Your task to perform on an android device: toggle notifications settings in the gmail app Image 0: 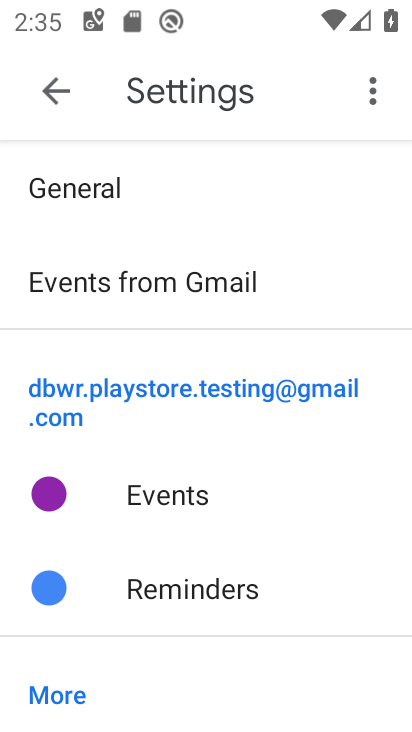
Step 0: click (52, 83)
Your task to perform on an android device: toggle notifications settings in the gmail app Image 1: 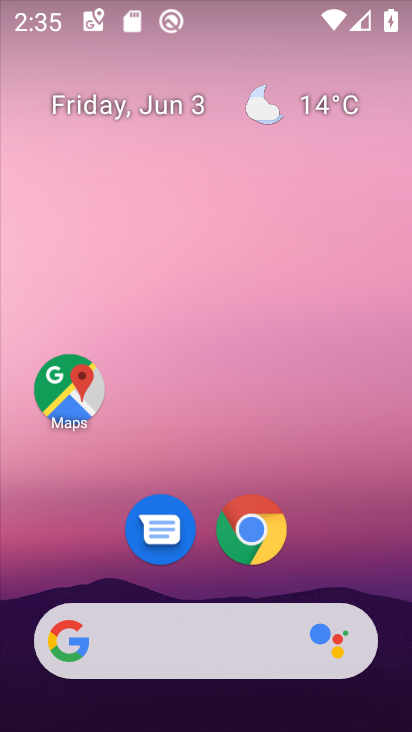
Step 1: drag from (228, 675) to (180, 51)
Your task to perform on an android device: toggle notifications settings in the gmail app Image 2: 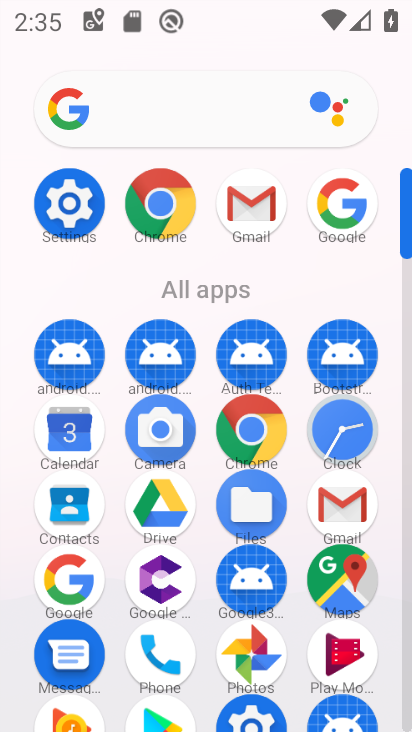
Step 2: click (344, 489)
Your task to perform on an android device: toggle notifications settings in the gmail app Image 3: 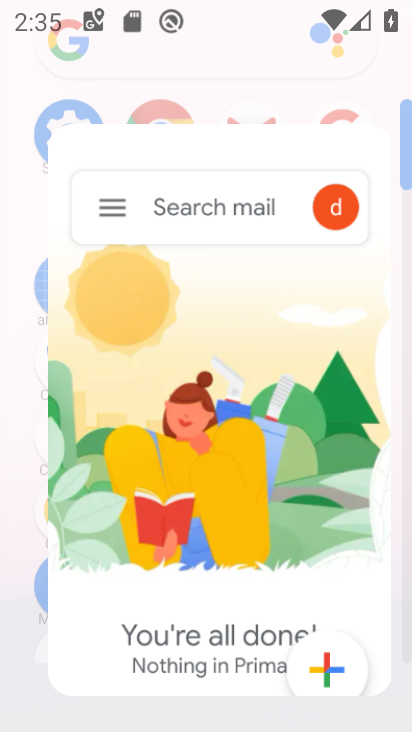
Step 3: click (346, 489)
Your task to perform on an android device: toggle notifications settings in the gmail app Image 4: 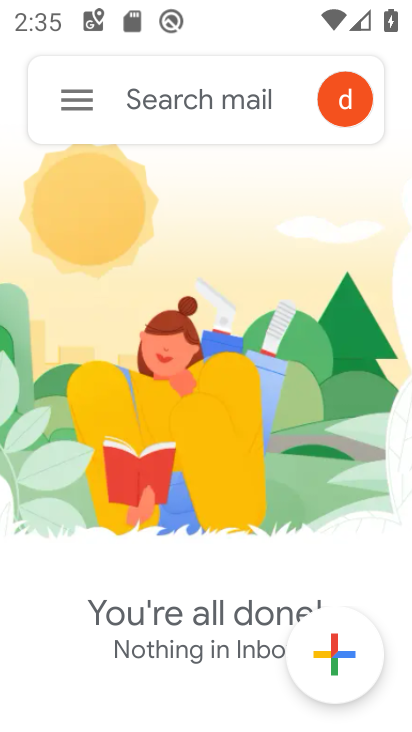
Step 4: click (59, 101)
Your task to perform on an android device: toggle notifications settings in the gmail app Image 5: 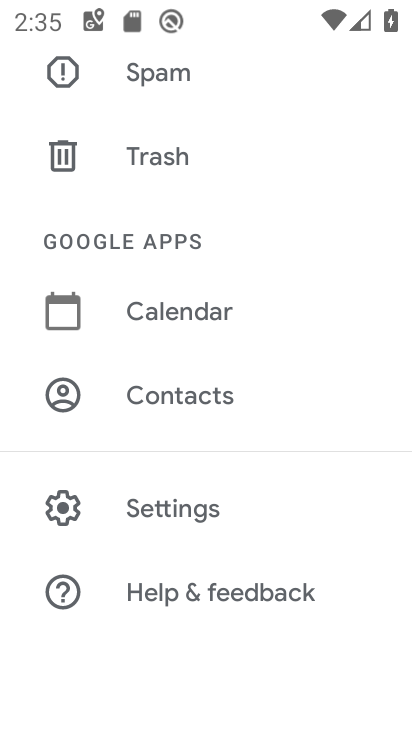
Step 5: click (174, 495)
Your task to perform on an android device: toggle notifications settings in the gmail app Image 6: 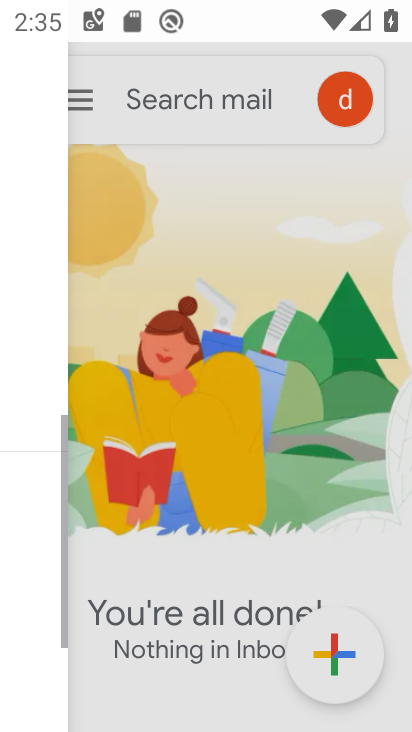
Step 6: click (170, 507)
Your task to perform on an android device: toggle notifications settings in the gmail app Image 7: 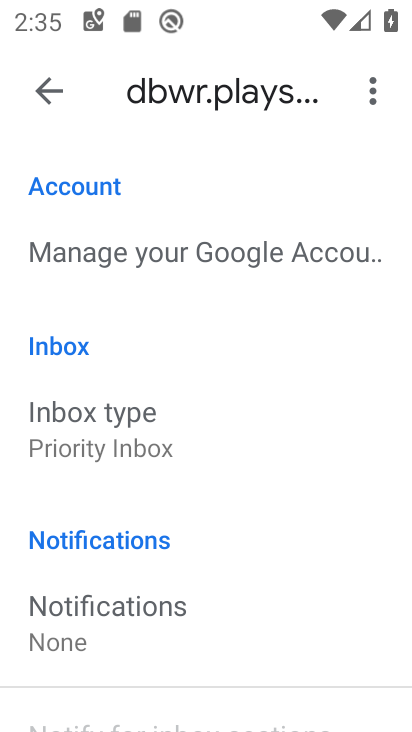
Step 7: drag from (133, 544) to (89, 282)
Your task to perform on an android device: toggle notifications settings in the gmail app Image 8: 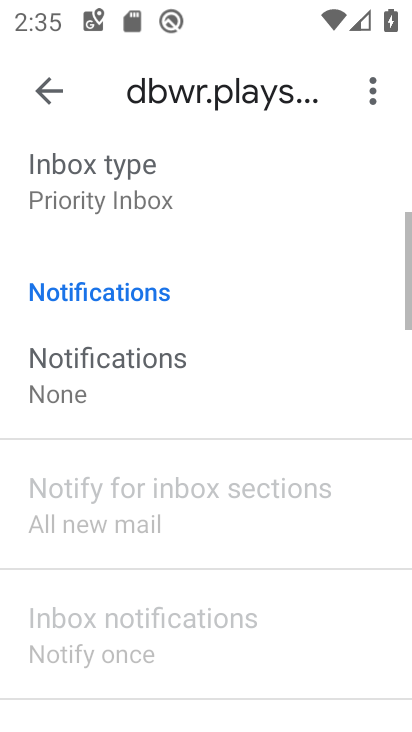
Step 8: drag from (97, 493) to (90, 293)
Your task to perform on an android device: toggle notifications settings in the gmail app Image 9: 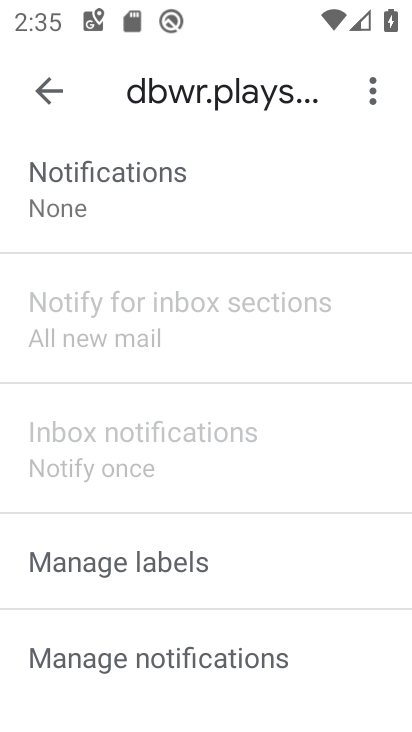
Step 9: drag from (90, 292) to (130, 537)
Your task to perform on an android device: toggle notifications settings in the gmail app Image 10: 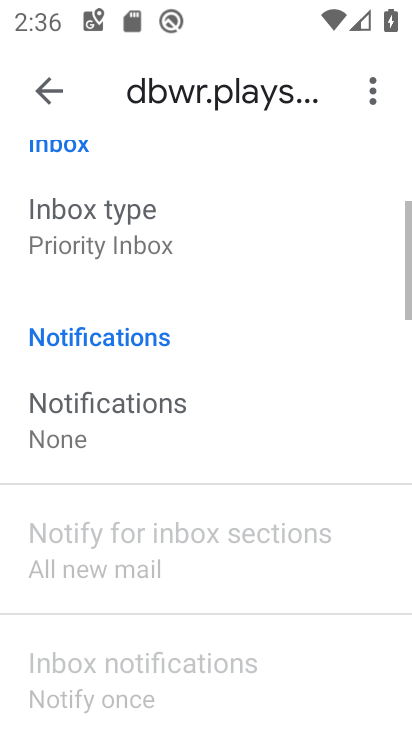
Step 10: drag from (111, 371) to (149, 490)
Your task to perform on an android device: toggle notifications settings in the gmail app Image 11: 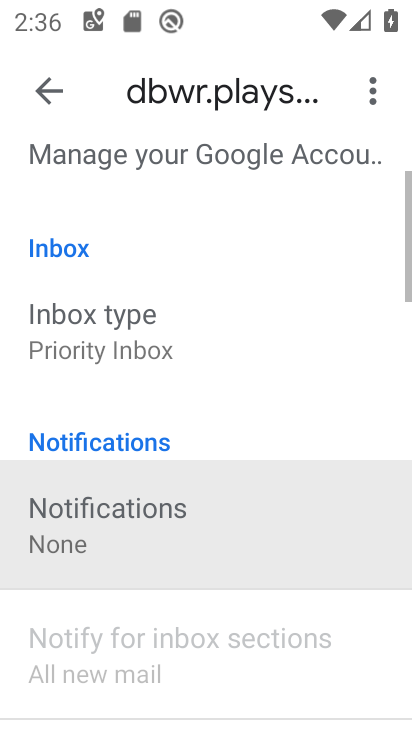
Step 11: drag from (120, 368) to (157, 550)
Your task to perform on an android device: toggle notifications settings in the gmail app Image 12: 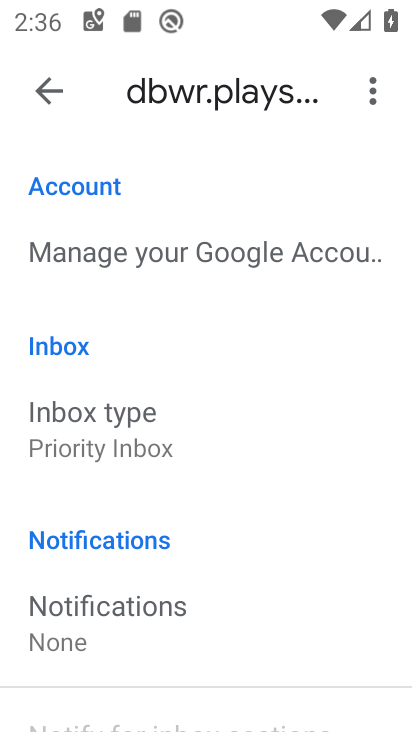
Step 12: click (76, 625)
Your task to perform on an android device: toggle notifications settings in the gmail app Image 13: 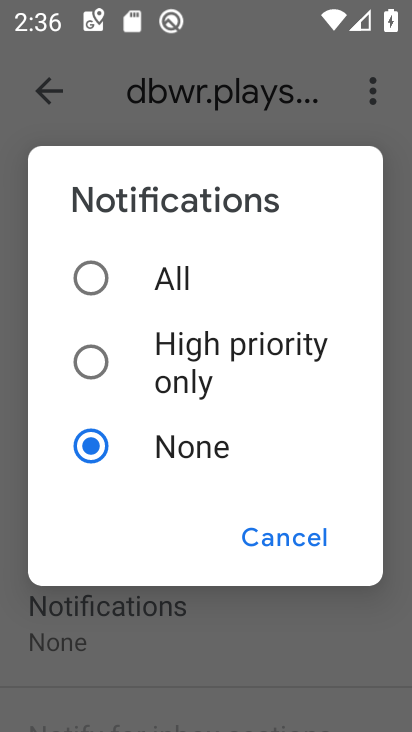
Step 13: click (93, 268)
Your task to perform on an android device: toggle notifications settings in the gmail app Image 14: 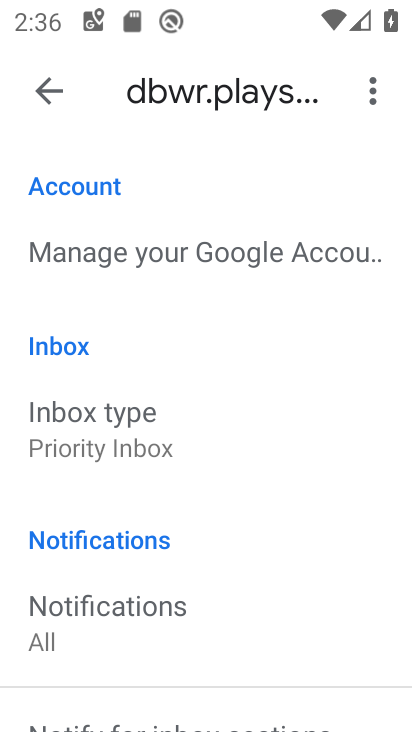
Step 14: task complete